Your task to perform on an android device: Do I have any events tomorrow? Image 0: 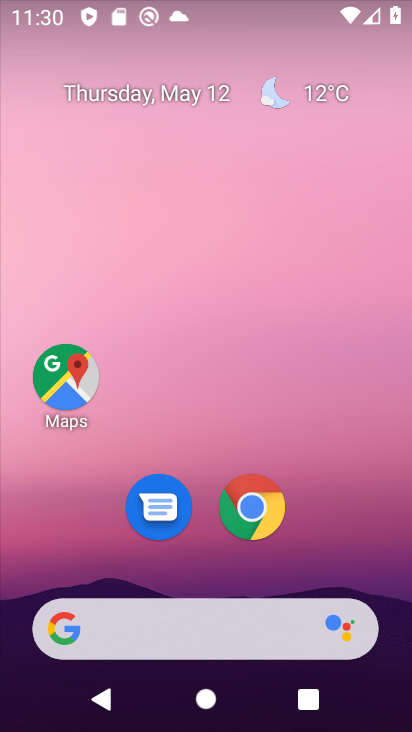
Step 0: drag from (228, 570) to (232, 10)
Your task to perform on an android device: Do I have any events tomorrow? Image 1: 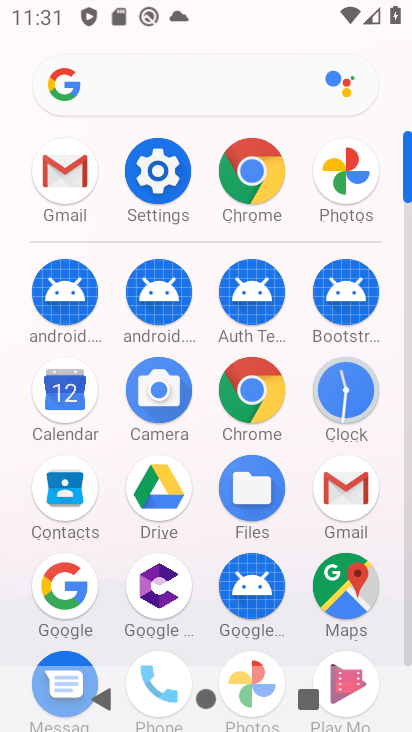
Step 1: click (63, 426)
Your task to perform on an android device: Do I have any events tomorrow? Image 2: 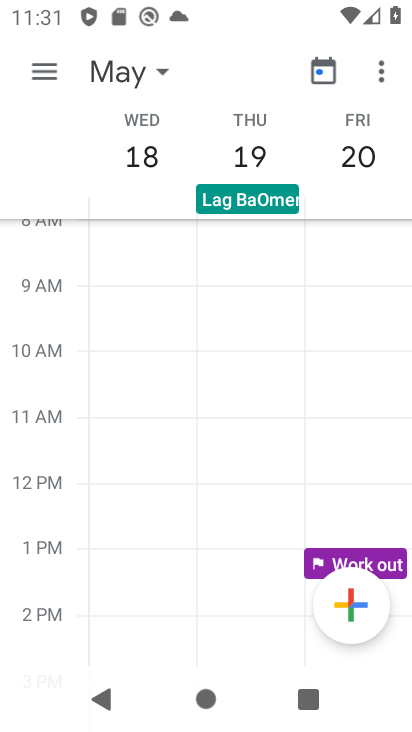
Step 2: click (50, 76)
Your task to perform on an android device: Do I have any events tomorrow? Image 3: 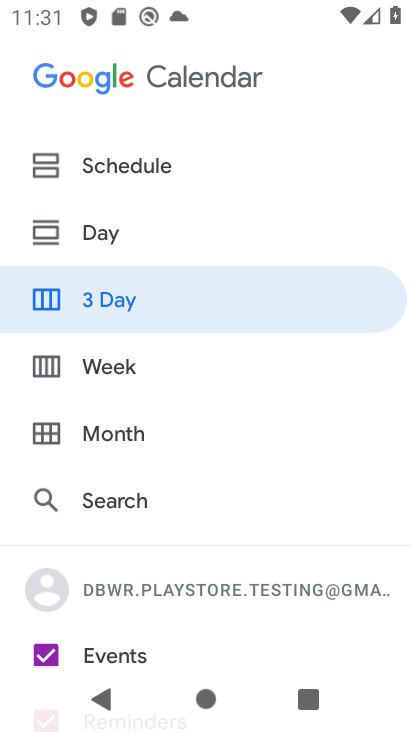
Step 3: drag from (117, 541) to (214, 110)
Your task to perform on an android device: Do I have any events tomorrow? Image 4: 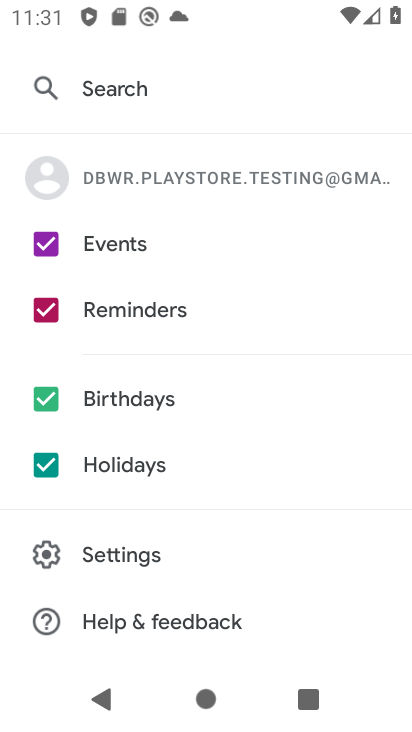
Step 4: click (144, 365)
Your task to perform on an android device: Do I have any events tomorrow? Image 5: 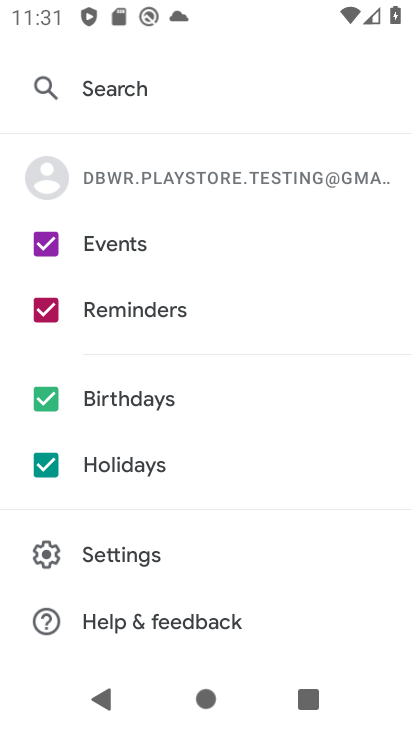
Step 5: click (127, 408)
Your task to perform on an android device: Do I have any events tomorrow? Image 6: 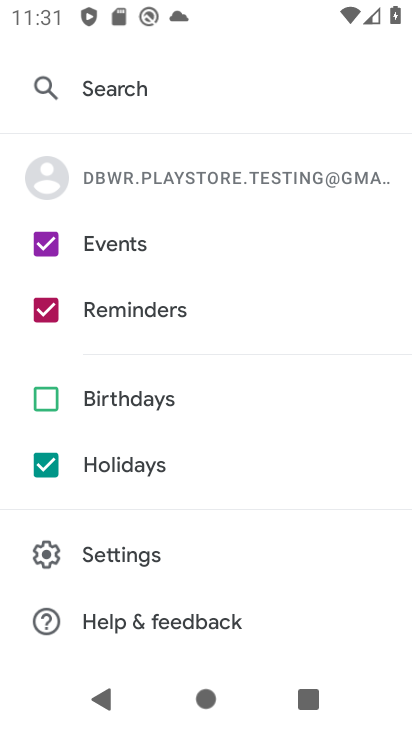
Step 6: click (108, 467)
Your task to perform on an android device: Do I have any events tomorrow? Image 7: 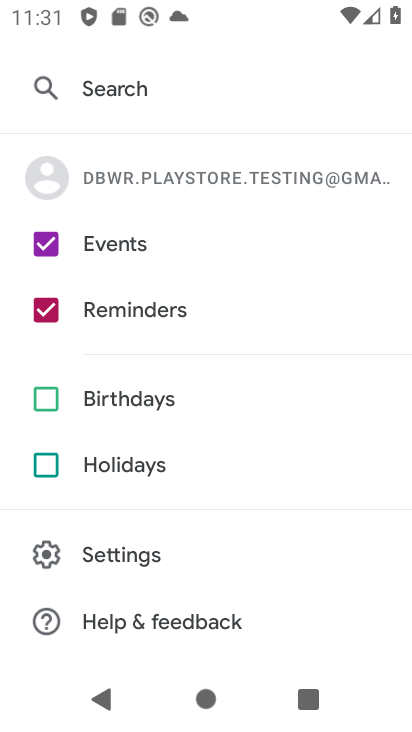
Step 7: click (87, 303)
Your task to perform on an android device: Do I have any events tomorrow? Image 8: 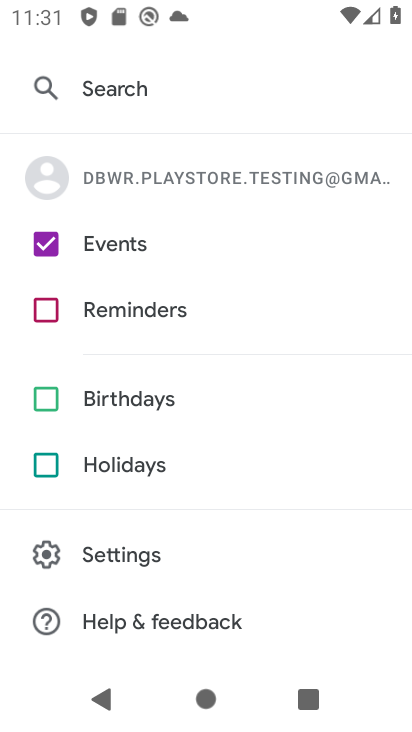
Step 8: drag from (323, 264) to (311, 642)
Your task to perform on an android device: Do I have any events tomorrow? Image 9: 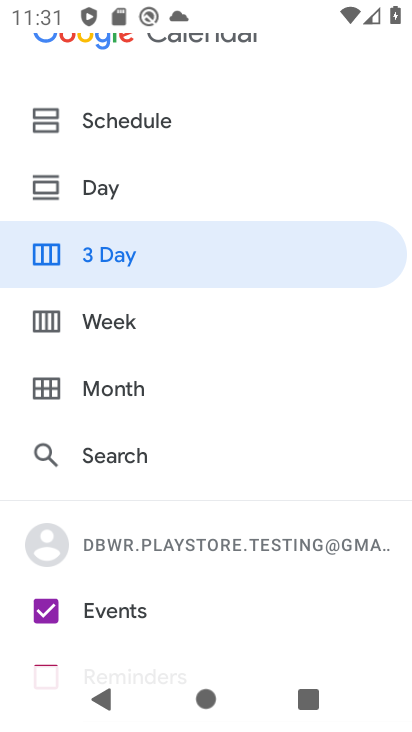
Step 9: click (165, 271)
Your task to perform on an android device: Do I have any events tomorrow? Image 10: 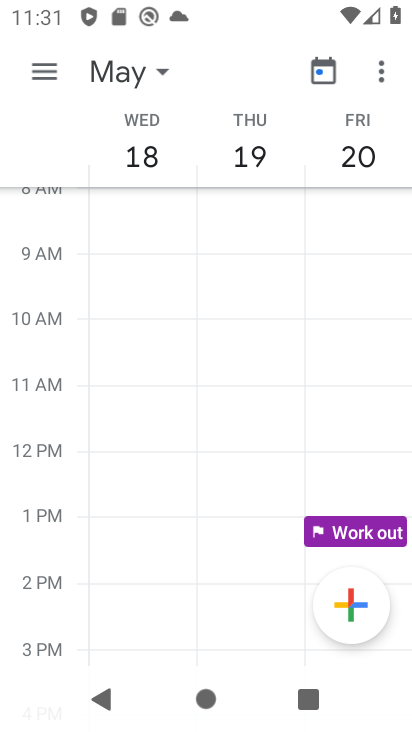
Step 10: task complete